Your task to perform on an android device: Open privacy settings Image 0: 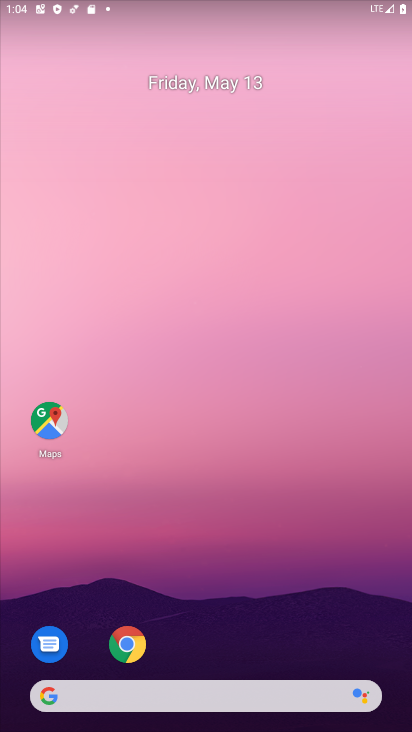
Step 0: drag from (313, 662) to (306, 136)
Your task to perform on an android device: Open privacy settings Image 1: 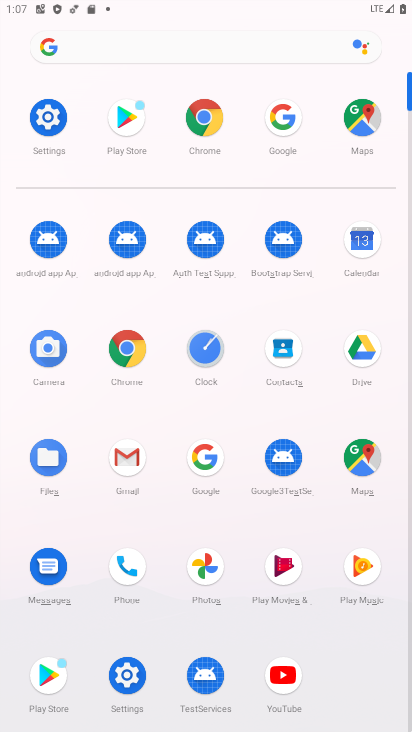
Step 1: click (119, 675)
Your task to perform on an android device: Open privacy settings Image 2: 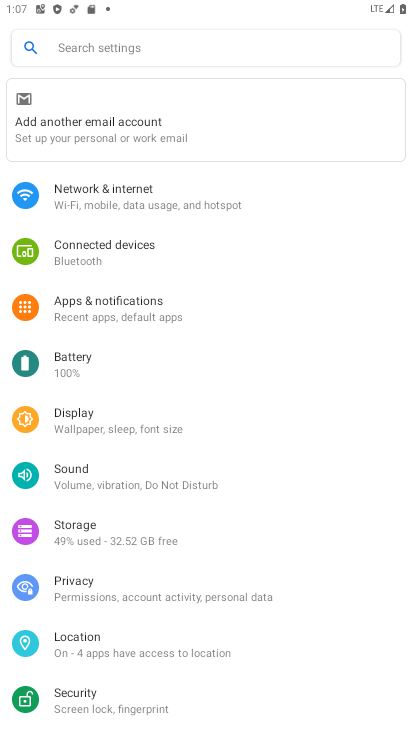
Step 2: click (82, 596)
Your task to perform on an android device: Open privacy settings Image 3: 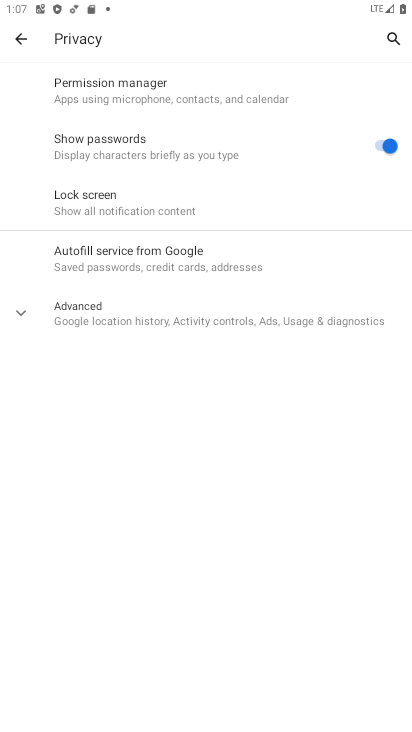
Step 3: task complete